Your task to perform on an android device: Open calendar and show me the third week of next month Image 0: 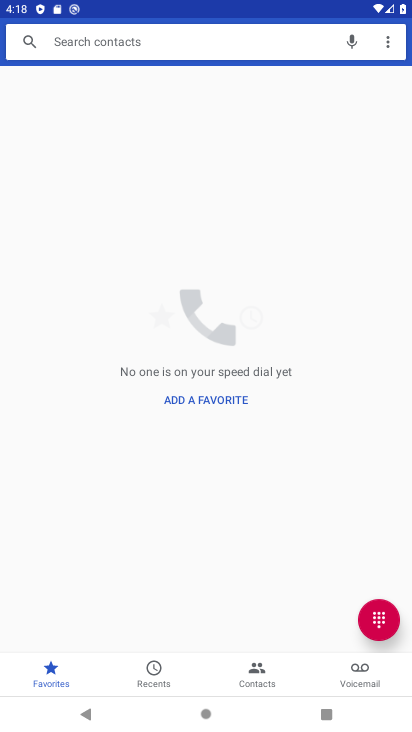
Step 0: click (83, 724)
Your task to perform on an android device: Open calendar and show me the third week of next month Image 1: 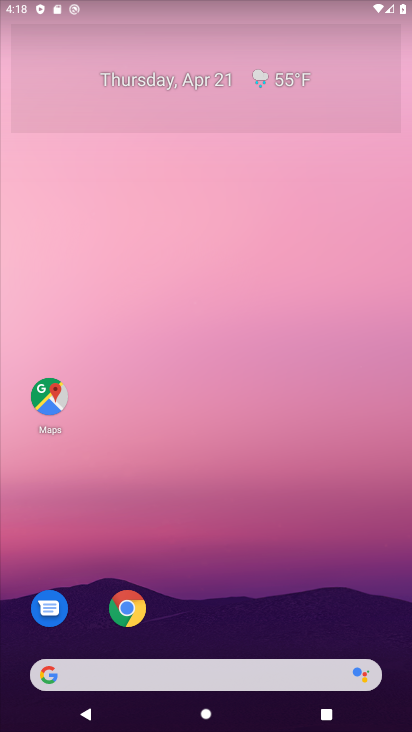
Step 1: drag from (274, 560) to (361, 53)
Your task to perform on an android device: Open calendar and show me the third week of next month Image 2: 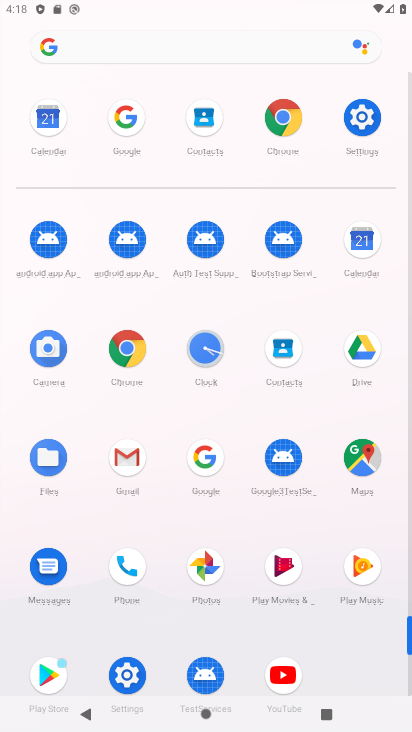
Step 2: click (48, 117)
Your task to perform on an android device: Open calendar and show me the third week of next month Image 3: 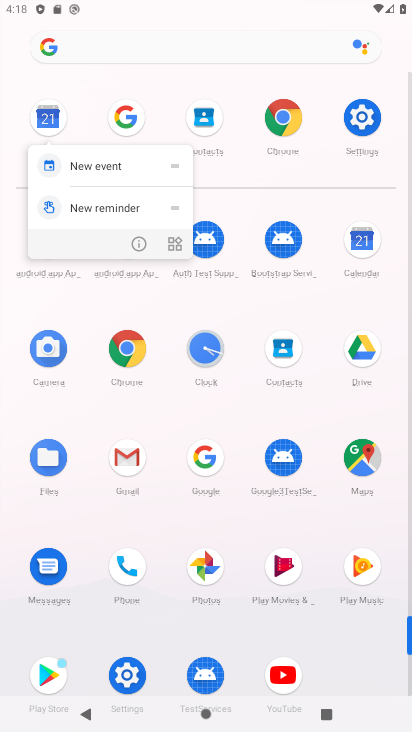
Step 3: click (41, 116)
Your task to perform on an android device: Open calendar and show me the third week of next month Image 4: 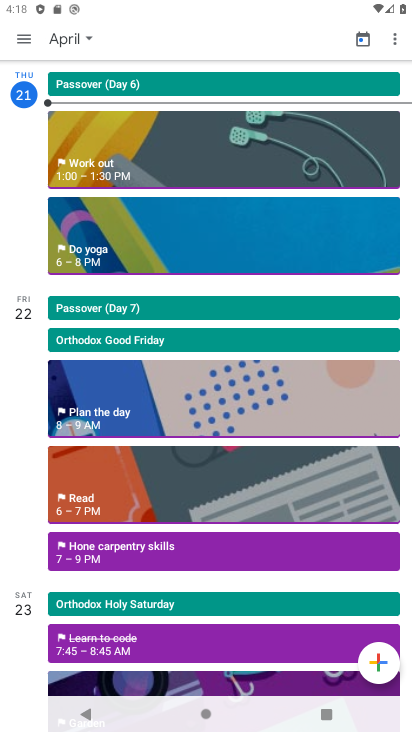
Step 4: task complete